Your task to perform on an android device: Turn off the flashlight Image 0: 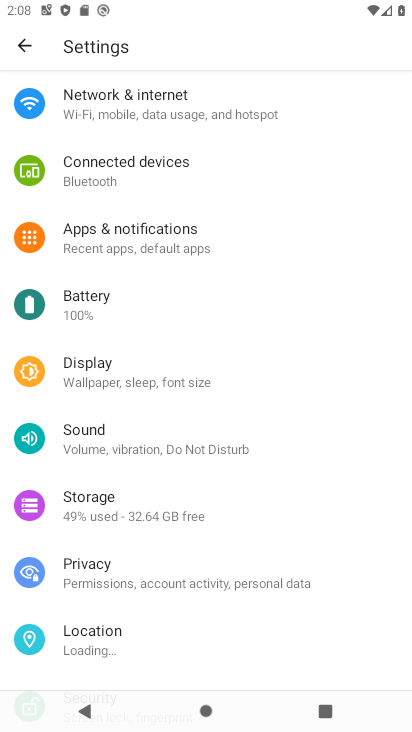
Step 0: drag from (155, 539) to (219, 322)
Your task to perform on an android device: Turn off the flashlight Image 1: 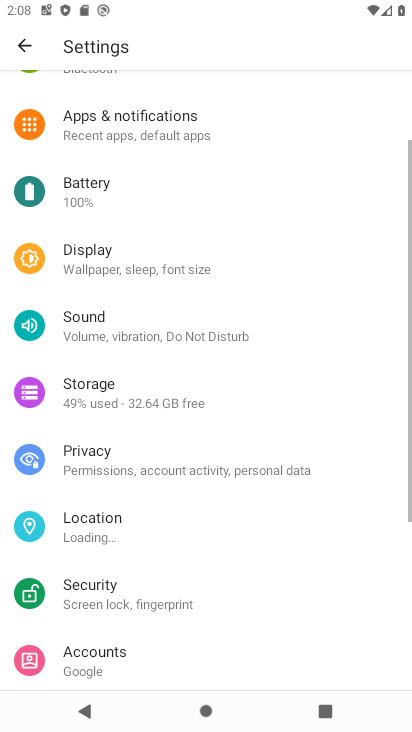
Step 1: drag from (267, 186) to (403, 696)
Your task to perform on an android device: Turn off the flashlight Image 2: 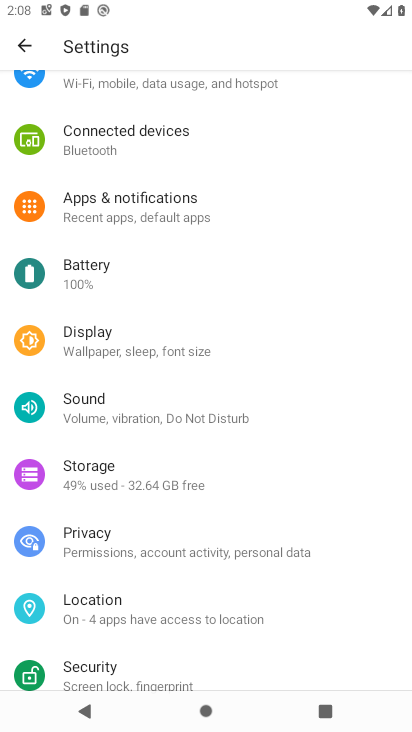
Step 2: drag from (237, 348) to (411, 682)
Your task to perform on an android device: Turn off the flashlight Image 3: 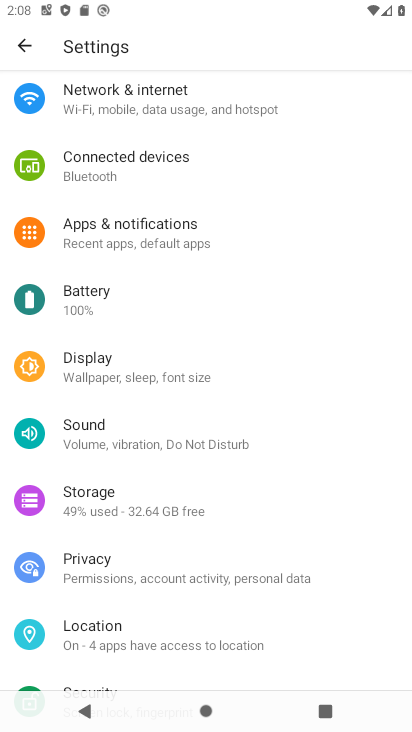
Step 3: drag from (140, 158) to (149, 495)
Your task to perform on an android device: Turn off the flashlight Image 4: 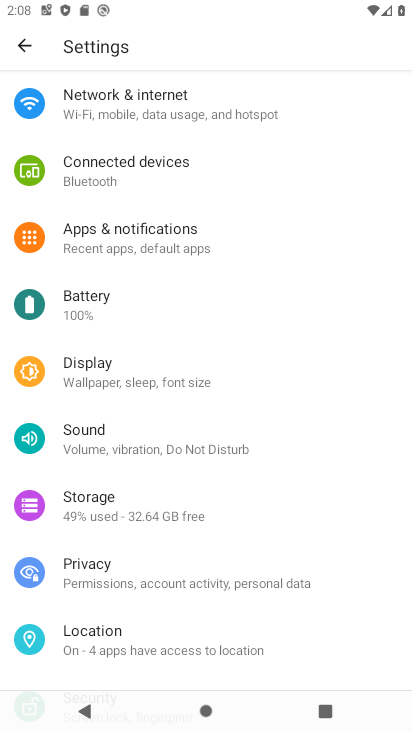
Step 4: click (17, 36)
Your task to perform on an android device: Turn off the flashlight Image 5: 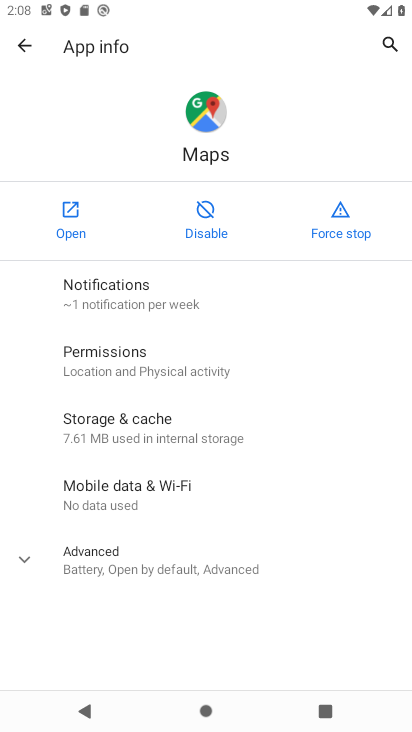
Step 5: press home button
Your task to perform on an android device: Turn off the flashlight Image 6: 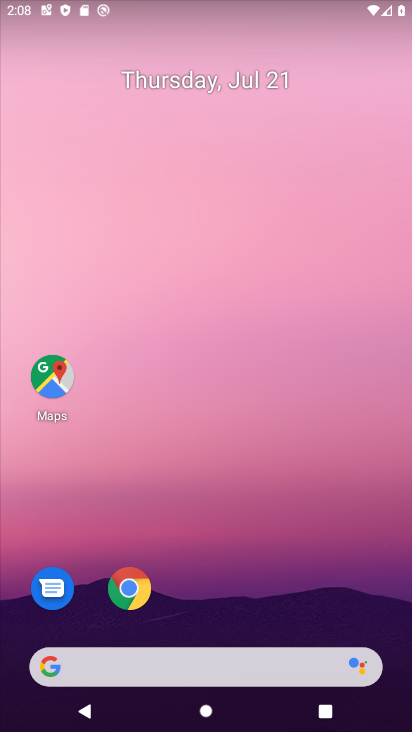
Step 6: drag from (206, 570) to (270, 117)
Your task to perform on an android device: Turn off the flashlight Image 7: 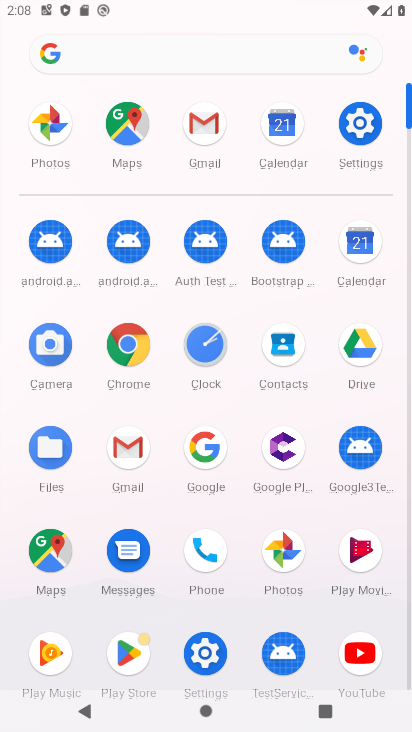
Step 7: click (350, 122)
Your task to perform on an android device: Turn off the flashlight Image 8: 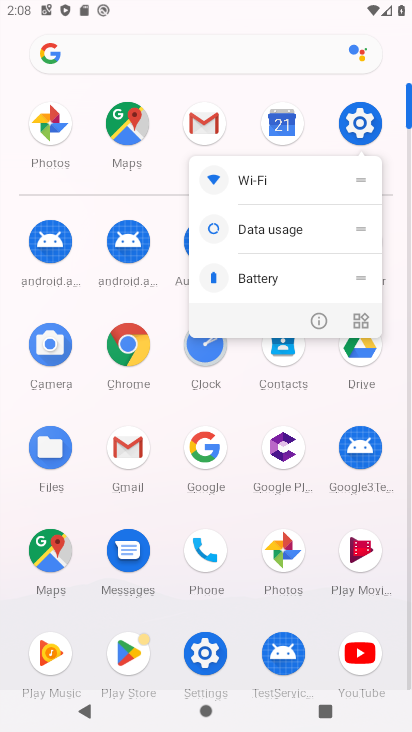
Step 8: click (313, 324)
Your task to perform on an android device: Turn off the flashlight Image 9: 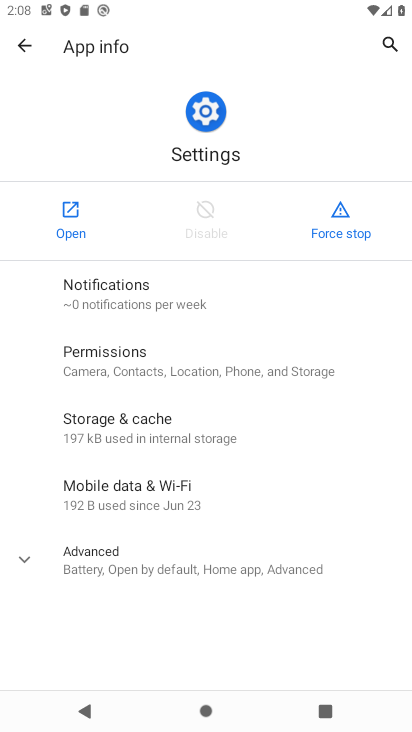
Step 9: click (53, 236)
Your task to perform on an android device: Turn off the flashlight Image 10: 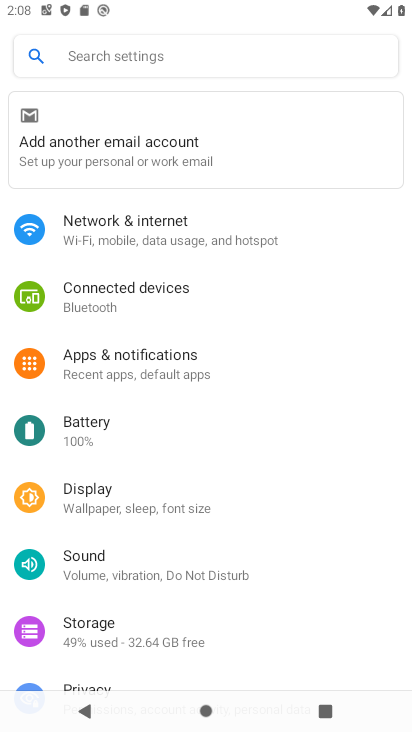
Step 10: click (156, 55)
Your task to perform on an android device: Turn off the flashlight Image 11: 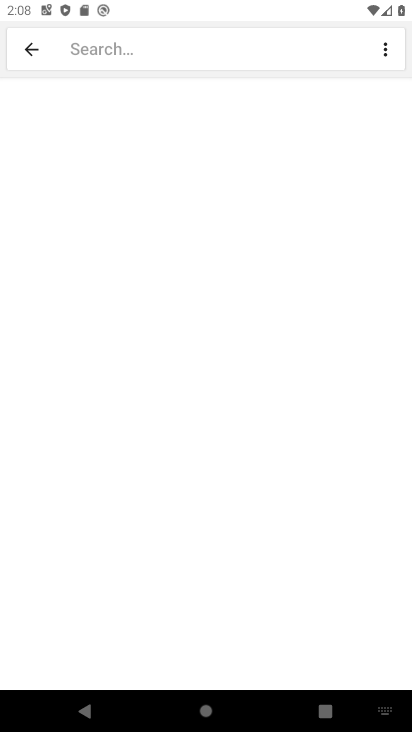
Step 11: type "flashlight"
Your task to perform on an android device: Turn off the flashlight Image 12: 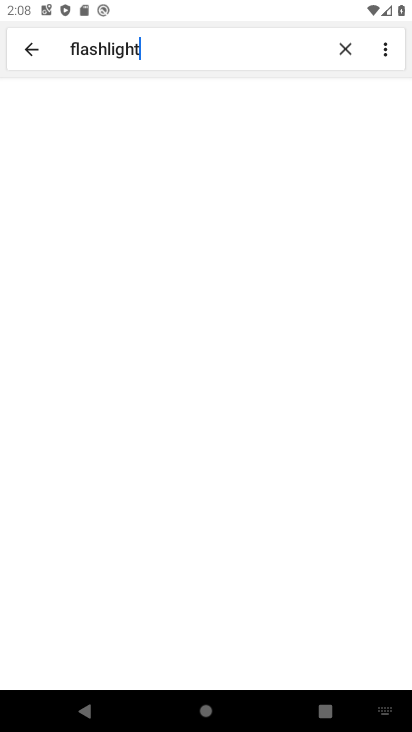
Step 12: type ""
Your task to perform on an android device: Turn off the flashlight Image 13: 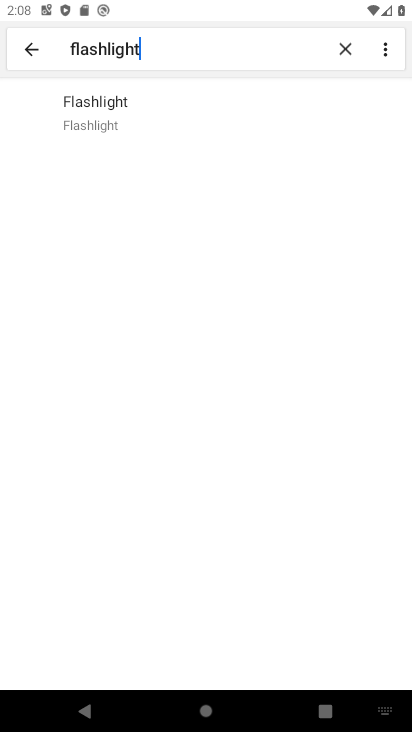
Step 13: click (138, 124)
Your task to perform on an android device: Turn off the flashlight Image 14: 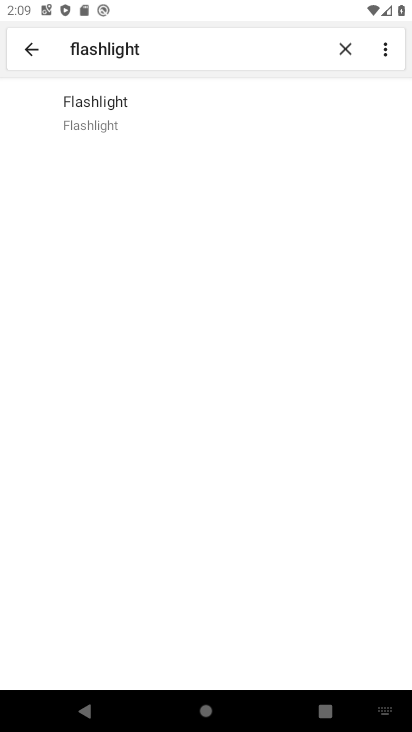
Step 14: task complete